Your task to perform on an android device: Go to sound settings Image 0: 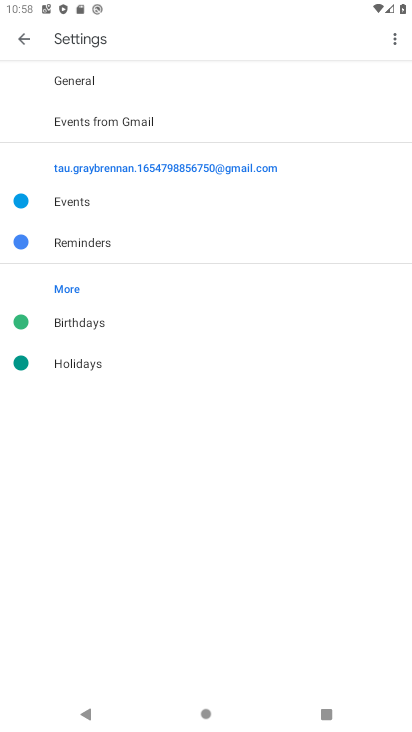
Step 0: press home button
Your task to perform on an android device: Go to sound settings Image 1: 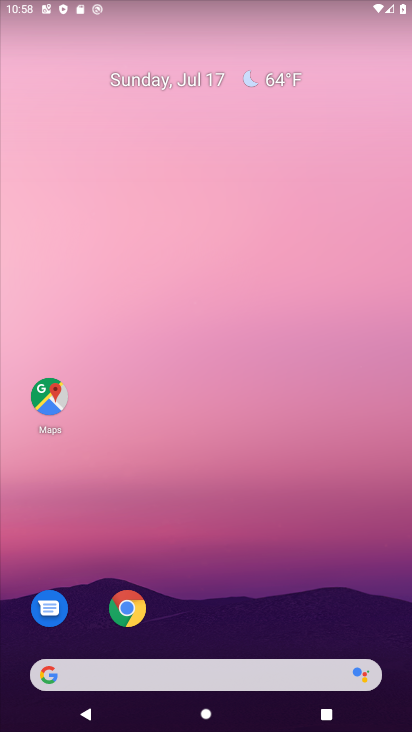
Step 1: drag from (379, 650) to (177, 53)
Your task to perform on an android device: Go to sound settings Image 2: 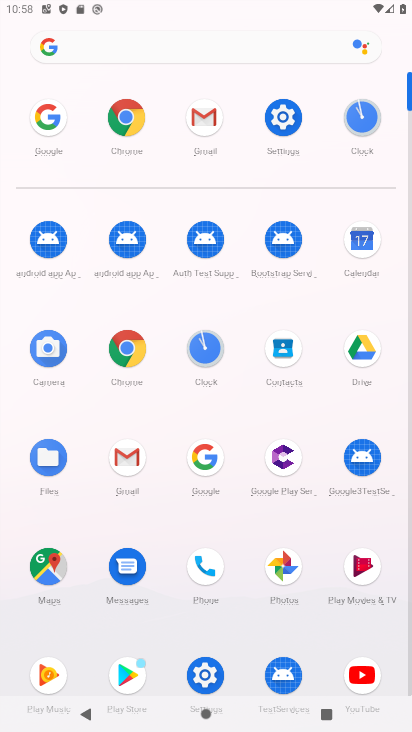
Step 2: click (192, 676)
Your task to perform on an android device: Go to sound settings Image 3: 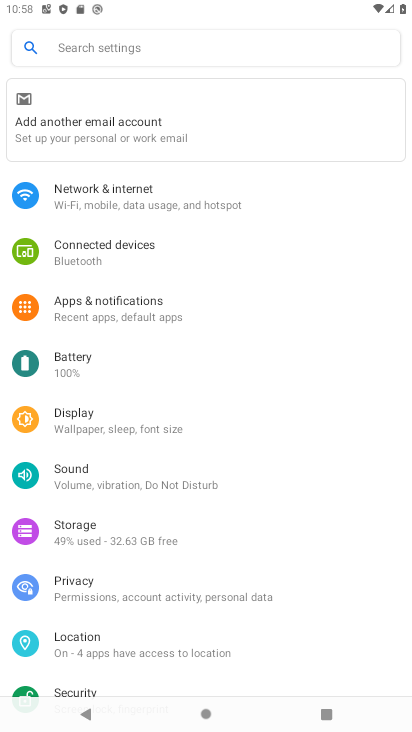
Step 3: click (90, 473)
Your task to perform on an android device: Go to sound settings Image 4: 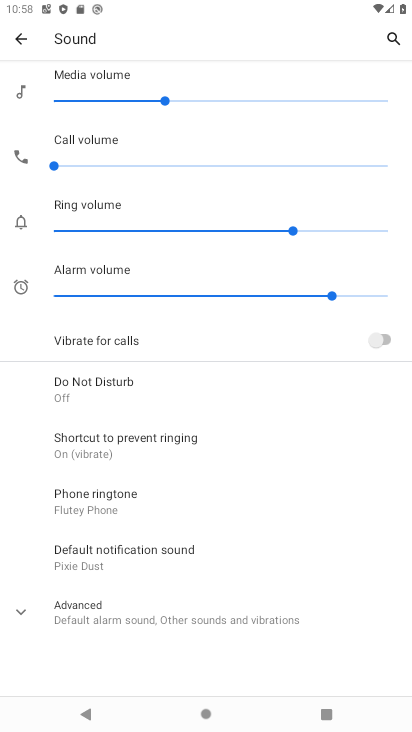
Step 4: task complete